Your task to perform on an android device: toggle javascript in the chrome app Image 0: 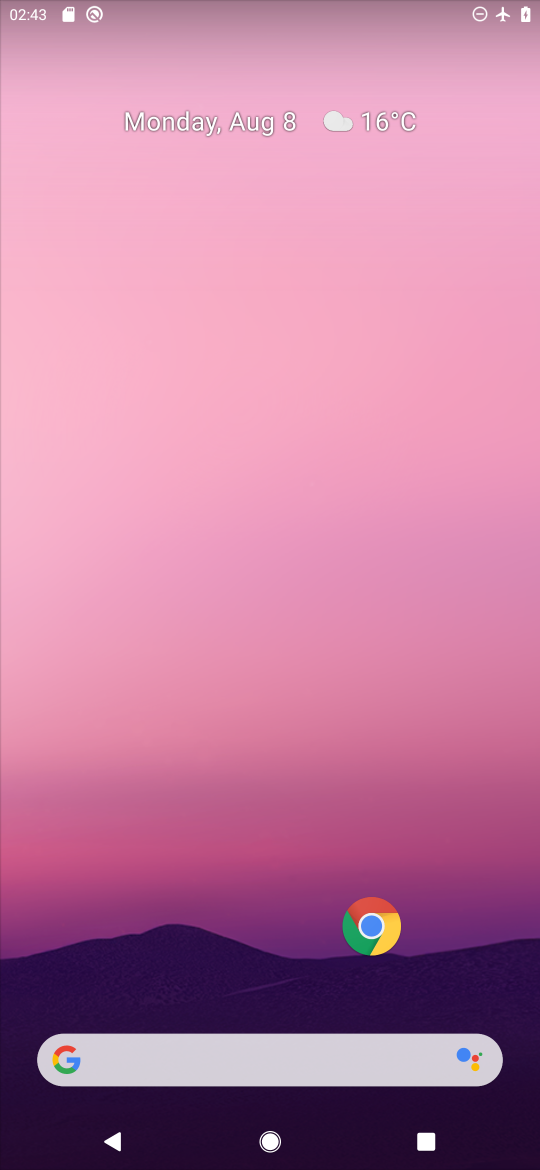
Step 0: drag from (226, 1029) to (243, 427)
Your task to perform on an android device: toggle javascript in the chrome app Image 1: 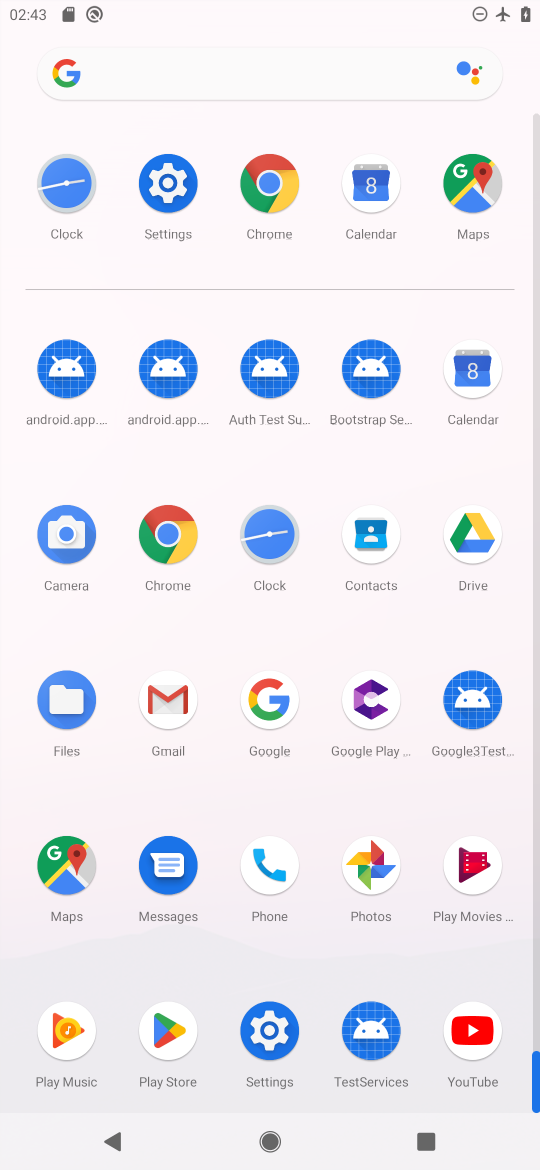
Step 1: click (163, 172)
Your task to perform on an android device: toggle javascript in the chrome app Image 2: 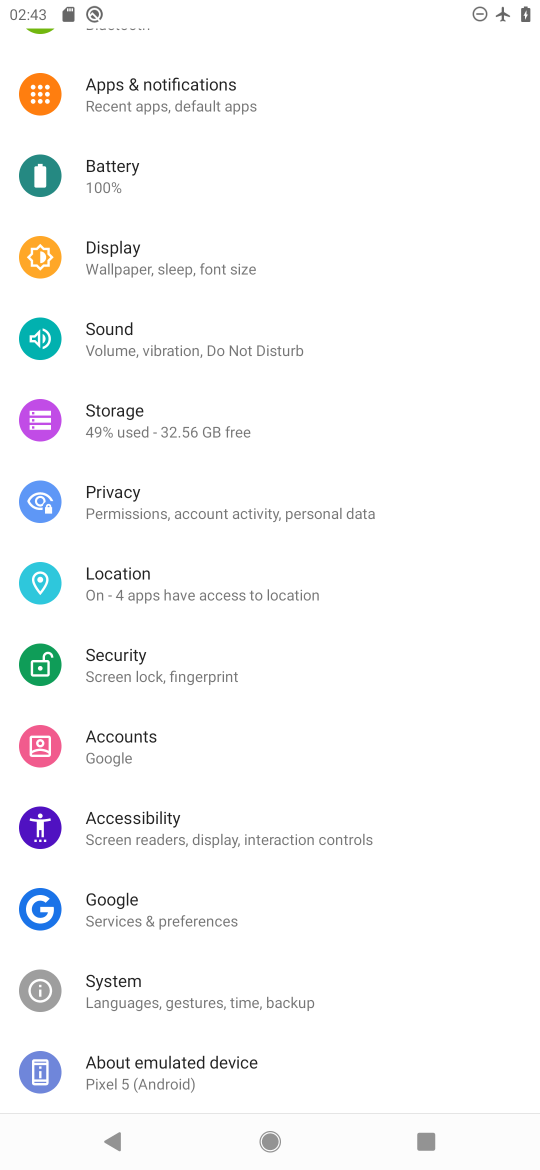
Step 2: drag from (192, 70) to (169, 1052)
Your task to perform on an android device: toggle javascript in the chrome app Image 3: 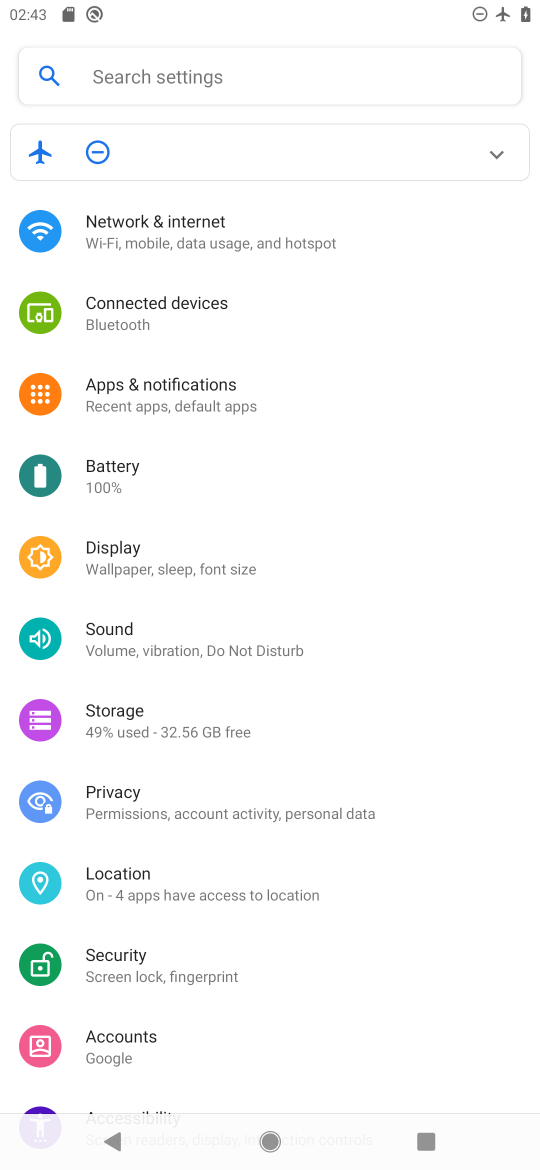
Step 3: drag from (284, 922) to (433, 253)
Your task to perform on an android device: toggle javascript in the chrome app Image 4: 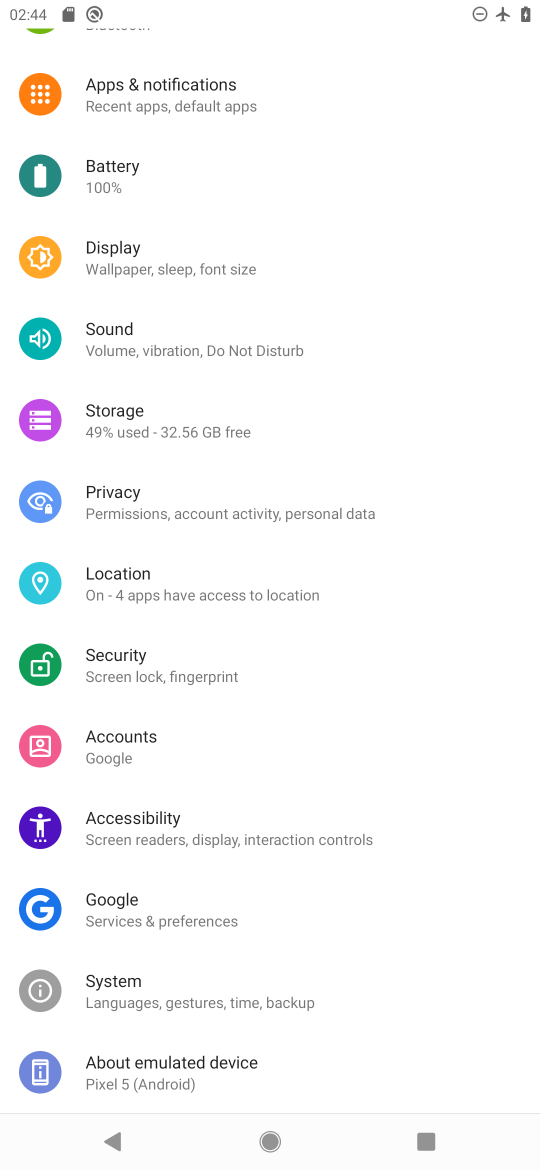
Step 4: click (164, 994)
Your task to perform on an android device: toggle javascript in the chrome app Image 5: 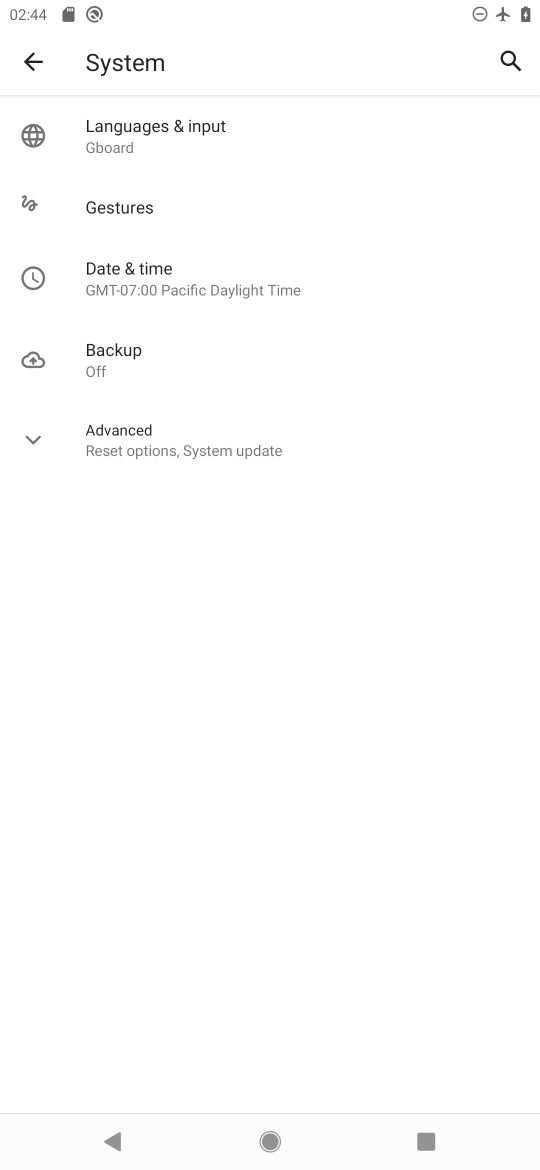
Step 5: click (36, 58)
Your task to perform on an android device: toggle javascript in the chrome app Image 6: 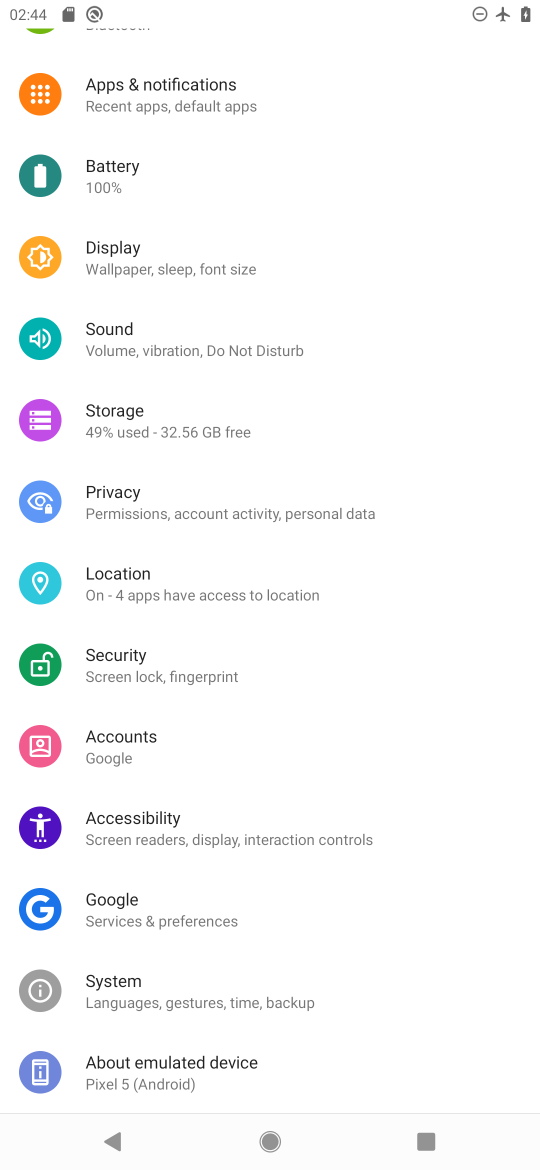
Step 6: press home button
Your task to perform on an android device: toggle javascript in the chrome app Image 7: 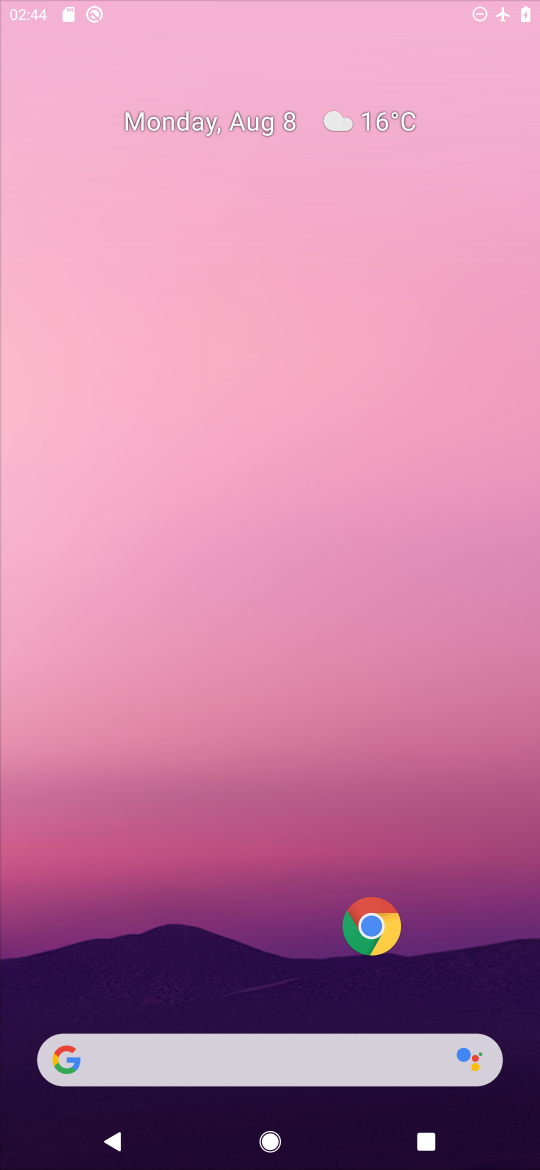
Step 7: drag from (231, 688) to (299, 227)
Your task to perform on an android device: toggle javascript in the chrome app Image 8: 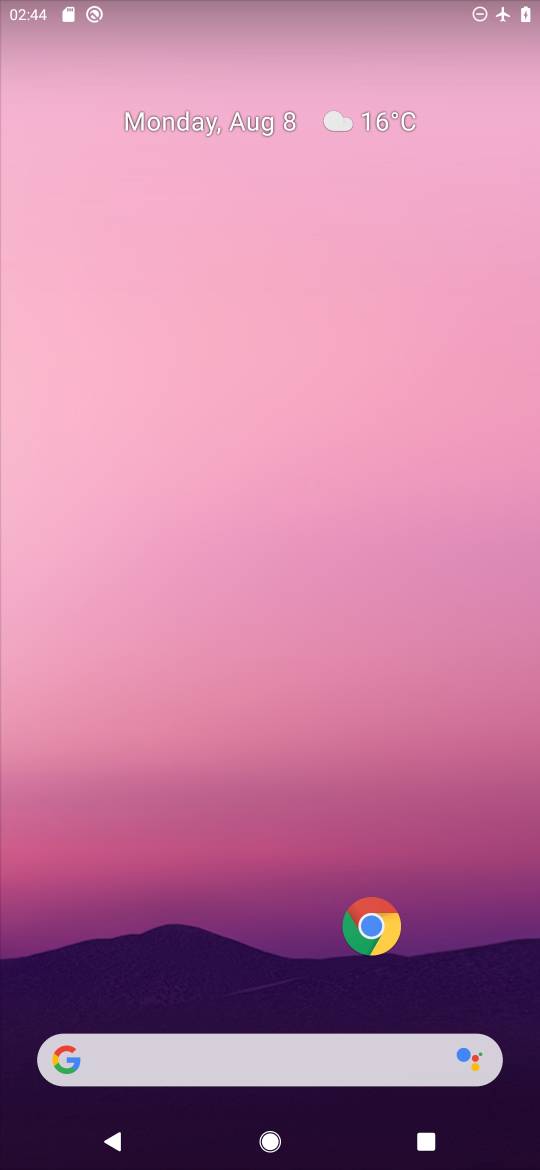
Step 8: drag from (266, 1042) to (308, 142)
Your task to perform on an android device: toggle javascript in the chrome app Image 9: 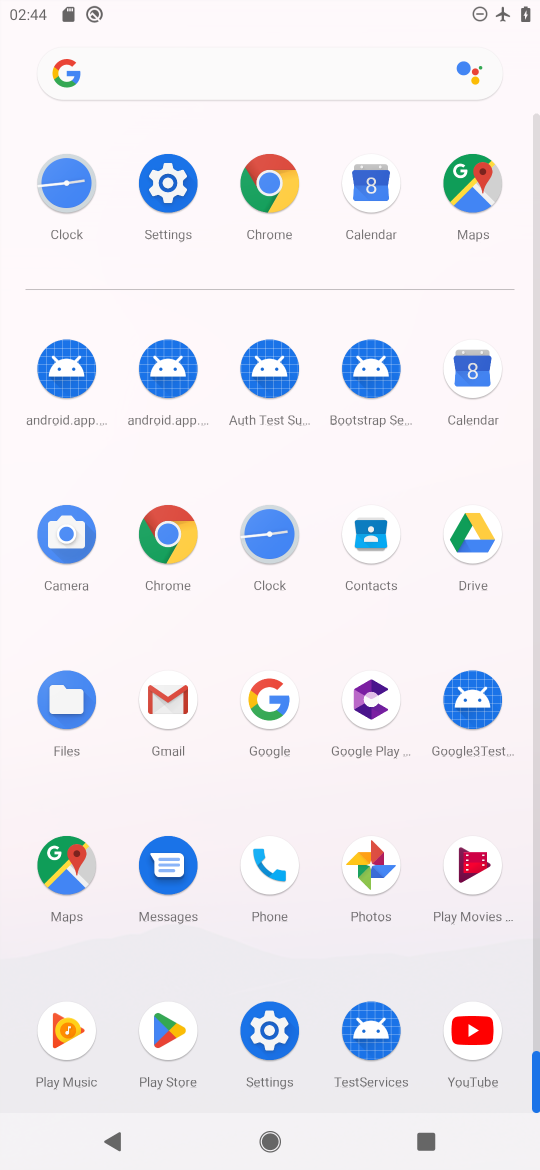
Step 9: click (263, 172)
Your task to perform on an android device: toggle javascript in the chrome app Image 10: 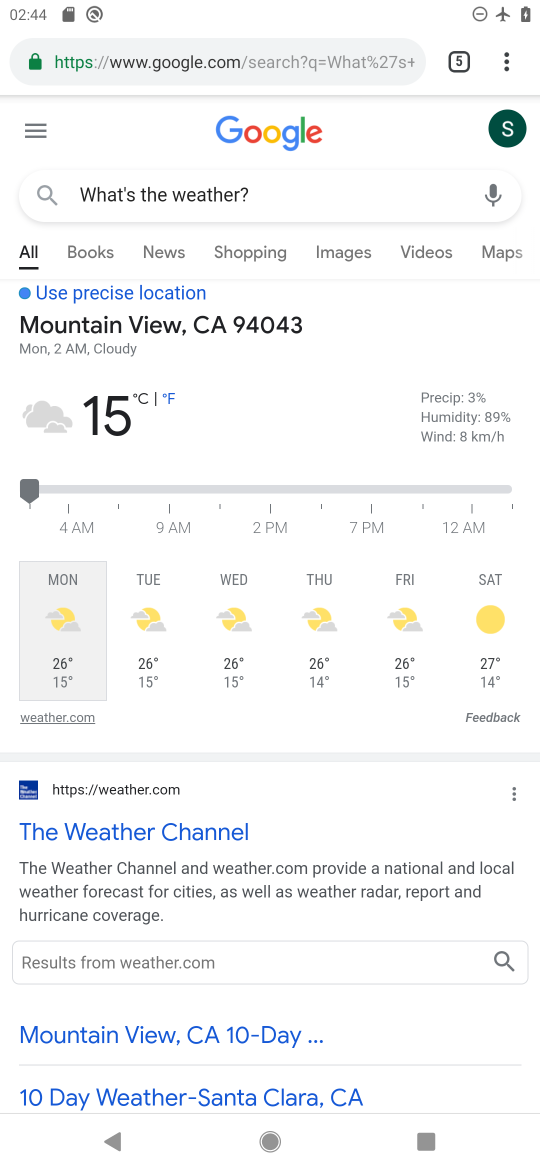
Step 10: click (515, 54)
Your task to perform on an android device: toggle javascript in the chrome app Image 11: 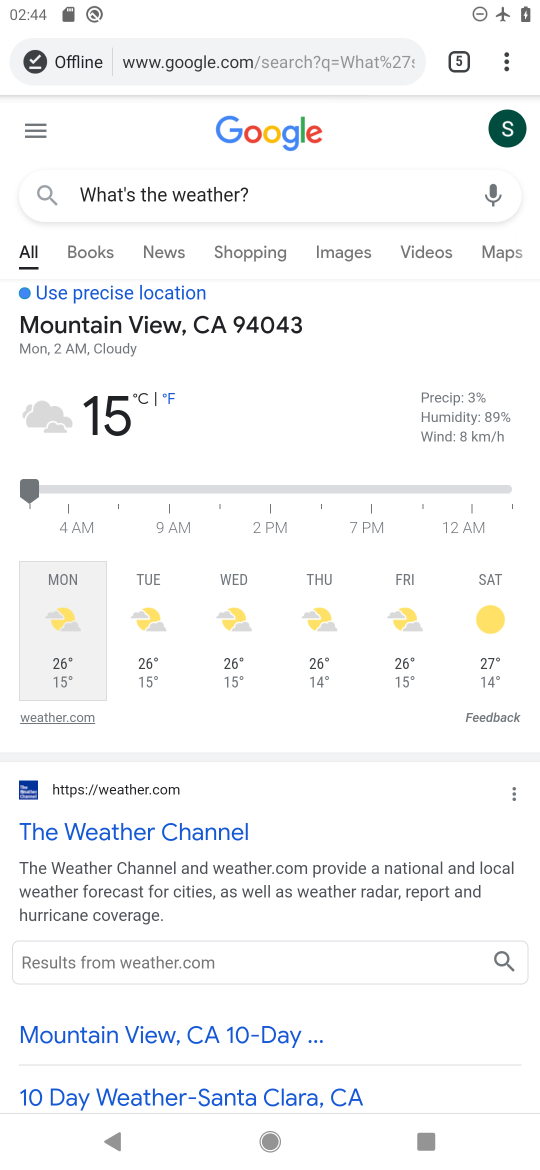
Step 11: click (515, 54)
Your task to perform on an android device: toggle javascript in the chrome app Image 12: 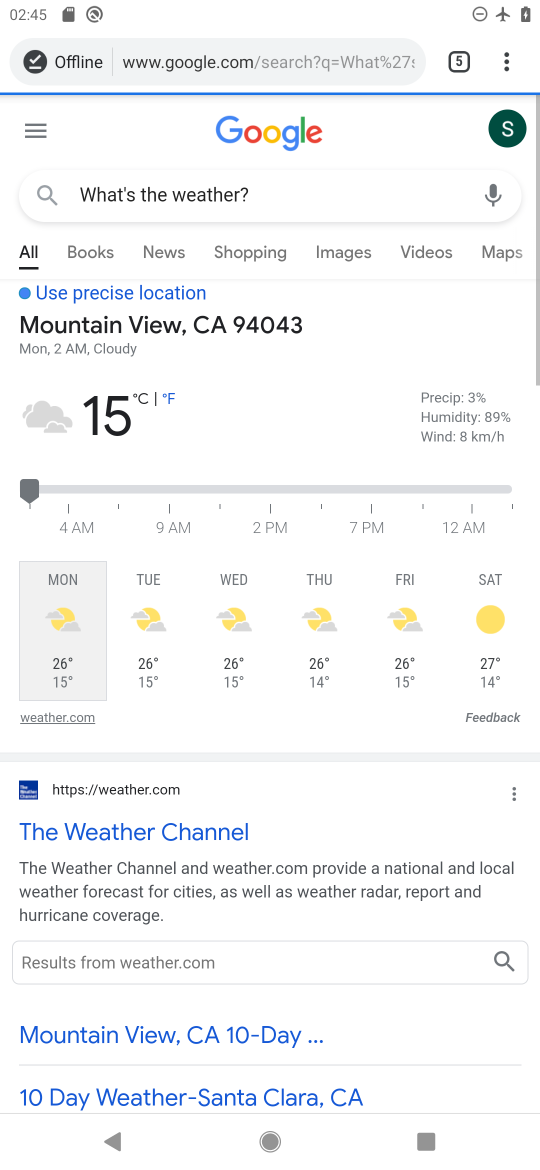
Step 12: click (515, 54)
Your task to perform on an android device: toggle javascript in the chrome app Image 13: 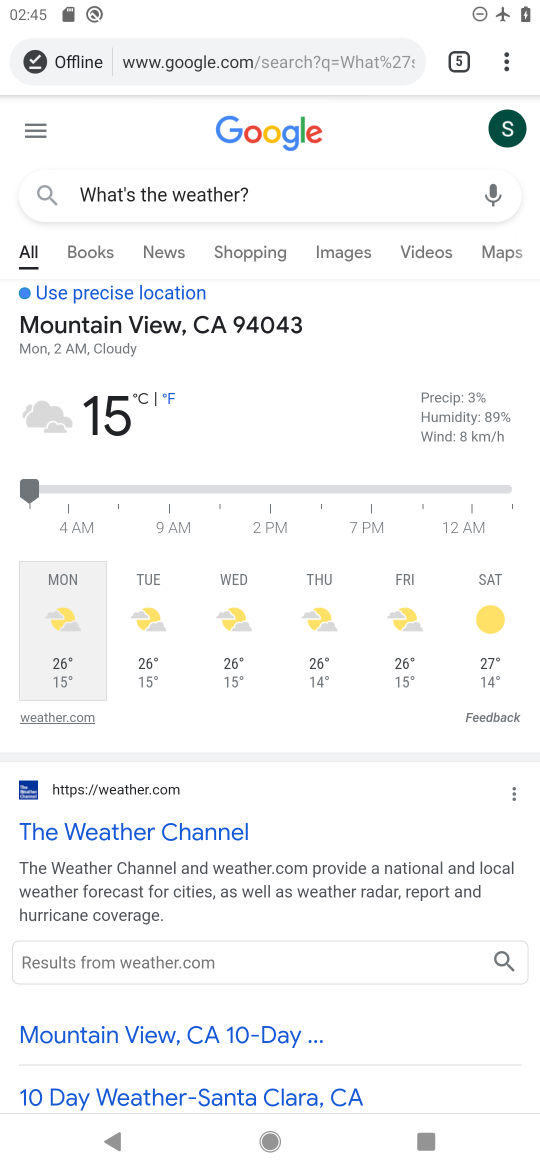
Step 13: click (509, 57)
Your task to perform on an android device: toggle javascript in the chrome app Image 14: 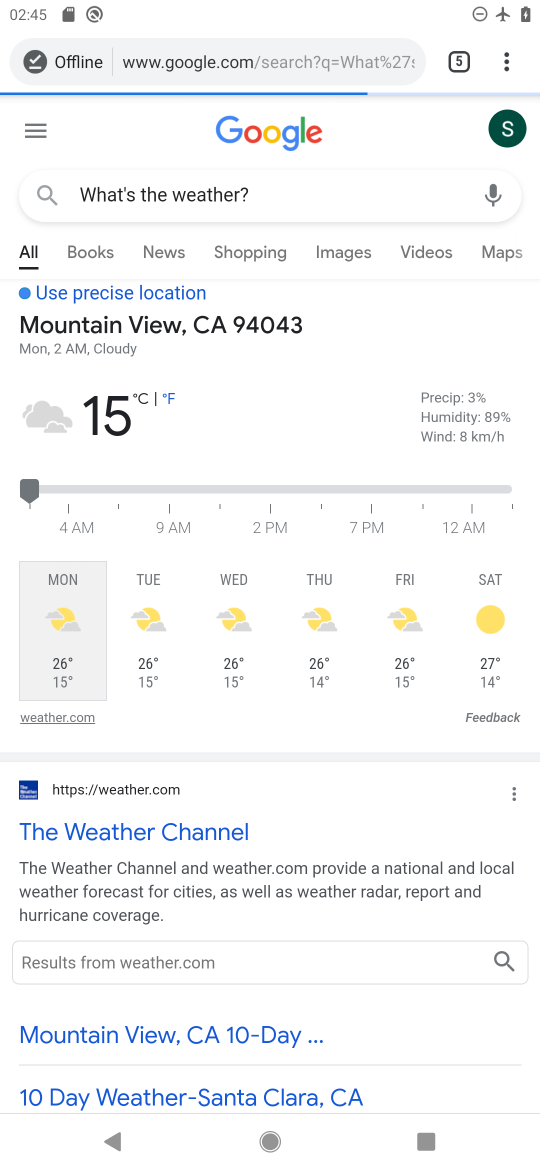
Step 14: click (509, 57)
Your task to perform on an android device: toggle javascript in the chrome app Image 15: 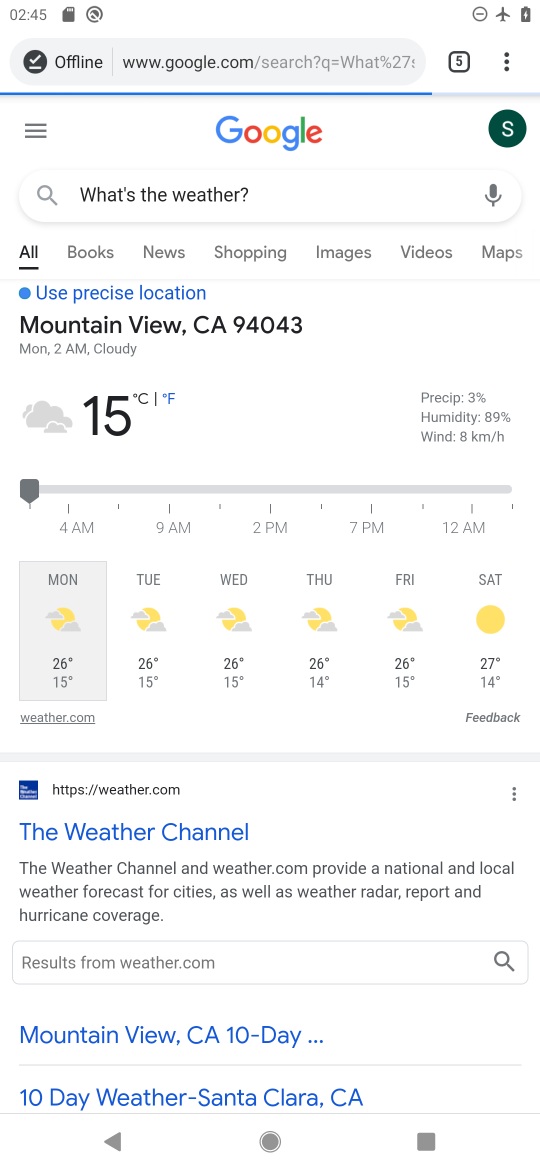
Step 15: click (509, 57)
Your task to perform on an android device: toggle javascript in the chrome app Image 16: 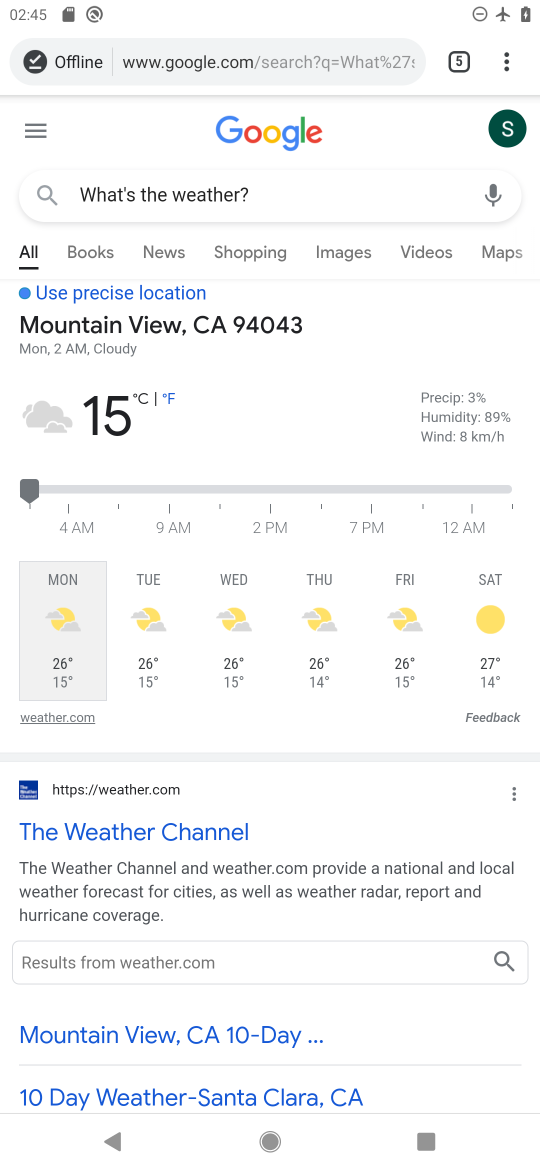
Step 16: click (534, 84)
Your task to perform on an android device: toggle javascript in the chrome app Image 17: 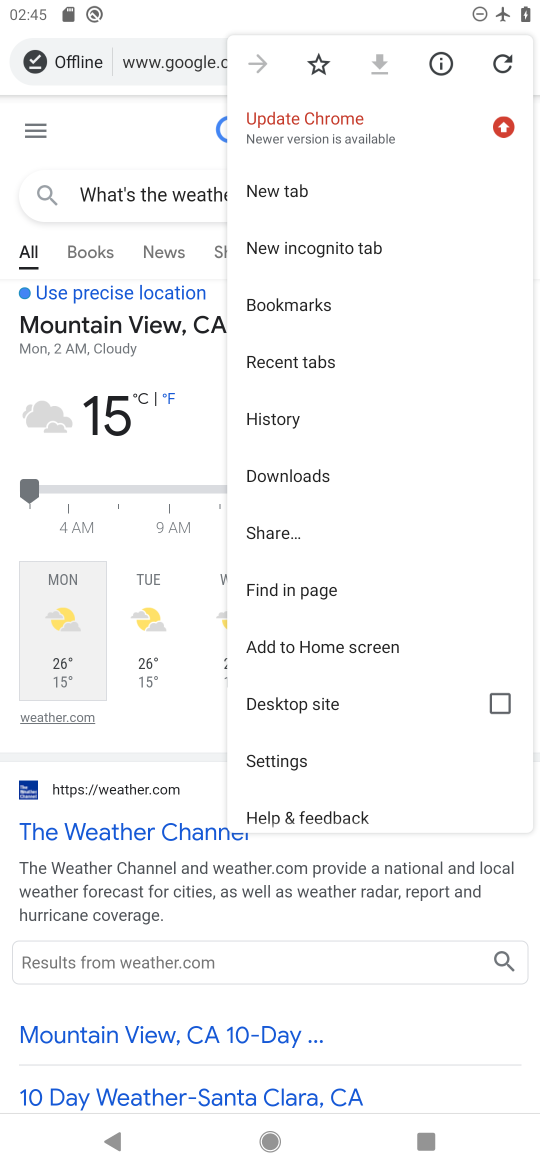
Step 17: click (297, 762)
Your task to perform on an android device: toggle javascript in the chrome app Image 18: 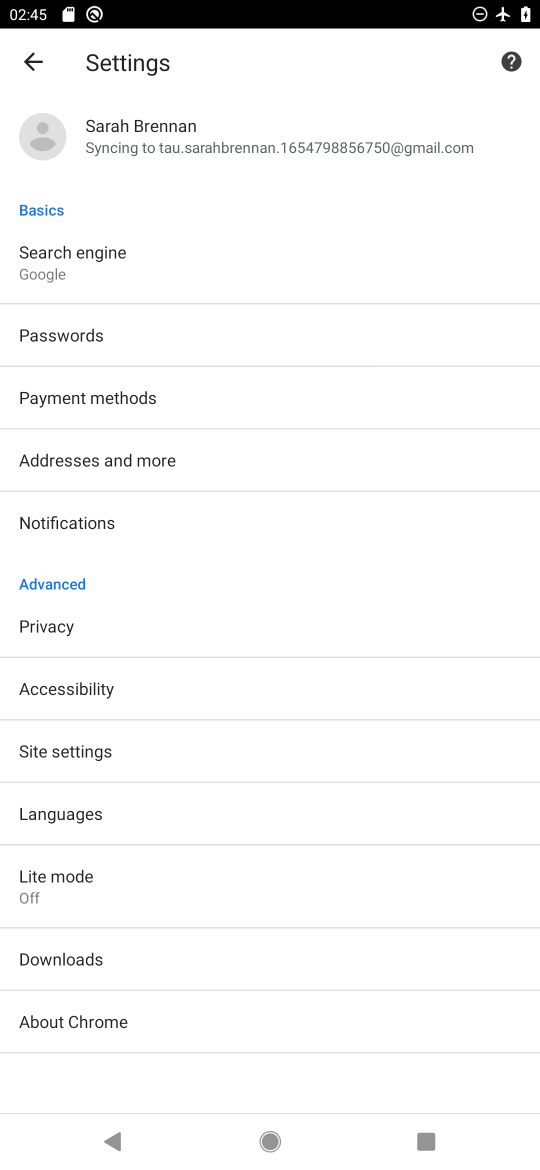
Step 18: click (219, 734)
Your task to perform on an android device: toggle javascript in the chrome app Image 19: 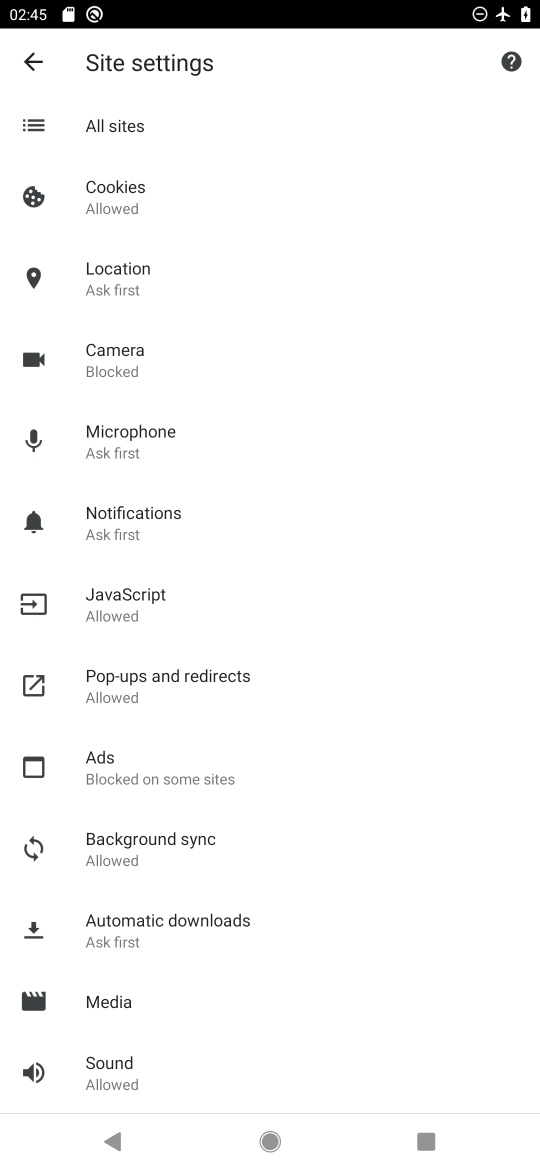
Step 19: click (146, 615)
Your task to perform on an android device: toggle javascript in the chrome app Image 20: 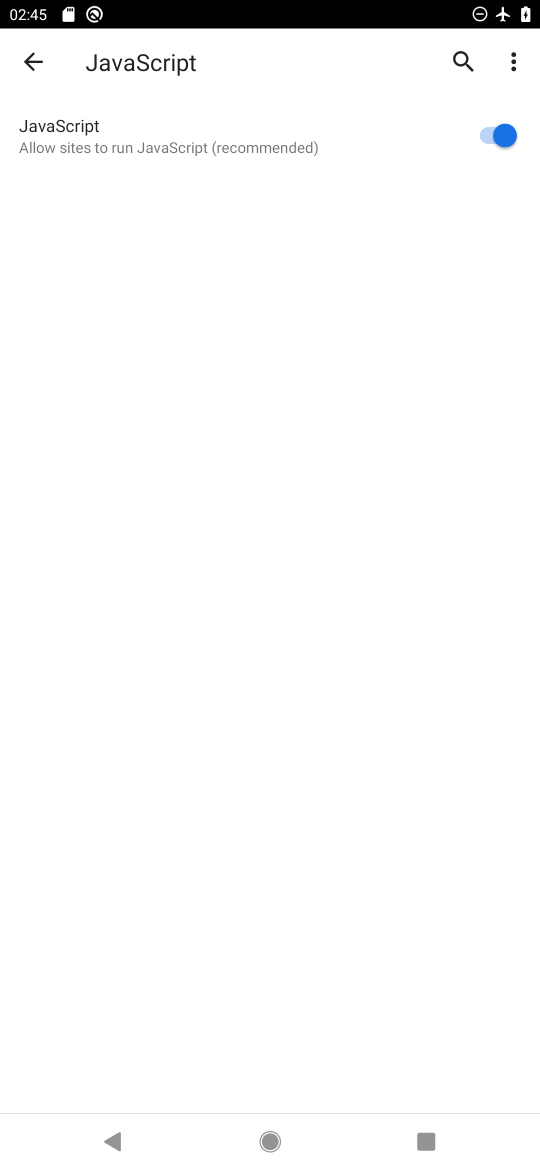
Step 20: click (512, 134)
Your task to perform on an android device: toggle javascript in the chrome app Image 21: 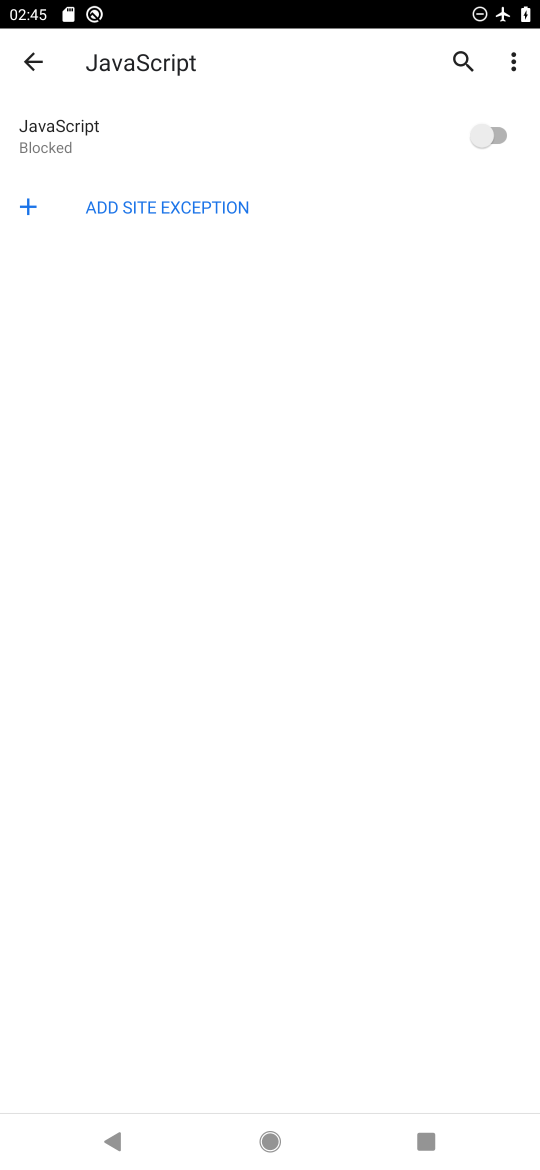
Step 21: task complete